Your task to perform on an android device: When is my next meeting? Image 0: 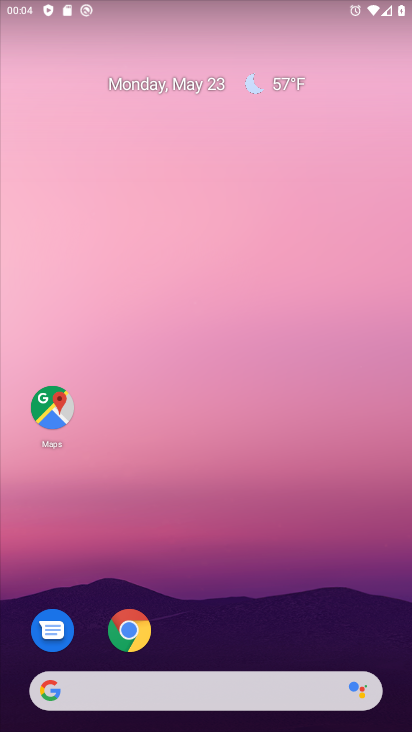
Step 0: click (197, 81)
Your task to perform on an android device: When is my next meeting? Image 1: 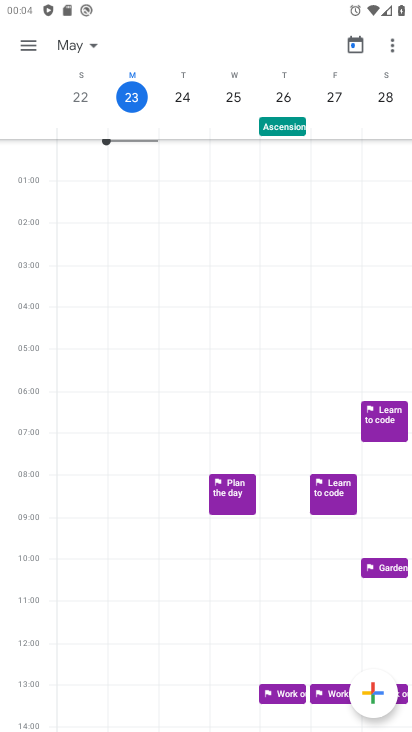
Step 1: task complete